Your task to perform on an android device: toggle priority inbox in the gmail app Image 0: 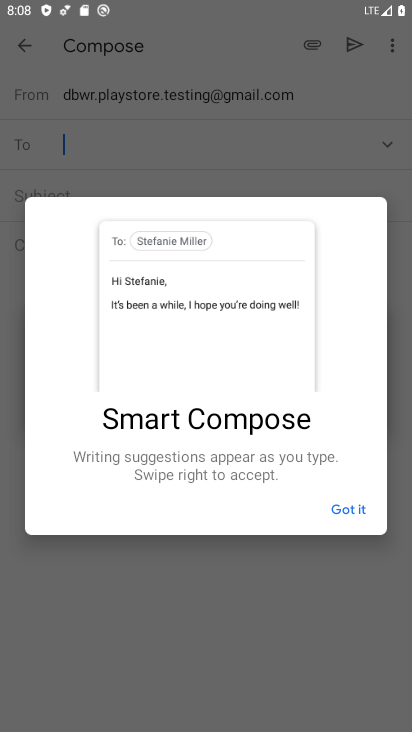
Step 0: press home button
Your task to perform on an android device: toggle priority inbox in the gmail app Image 1: 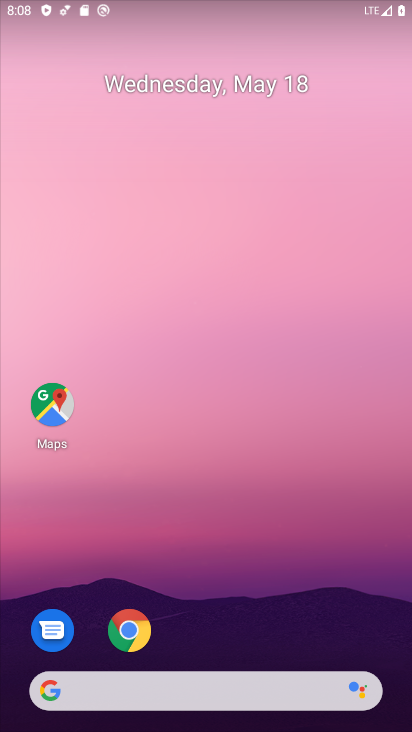
Step 1: drag from (228, 449) to (302, 80)
Your task to perform on an android device: toggle priority inbox in the gmail app Image 2: 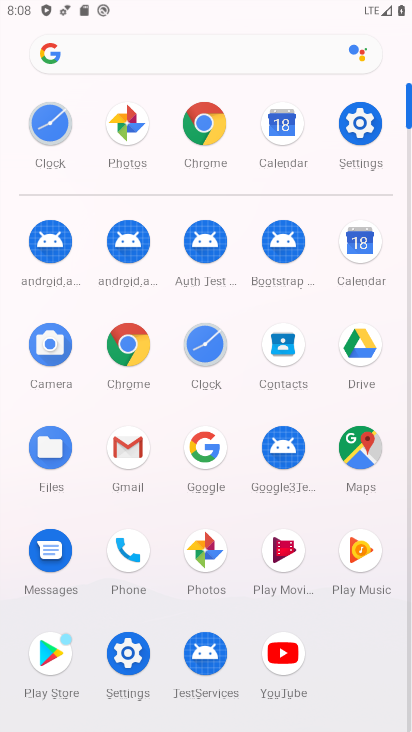
Step 2: click (125, 451)
Your task to perform on an android device: toggle priority inbox in the gmail app Image 3: 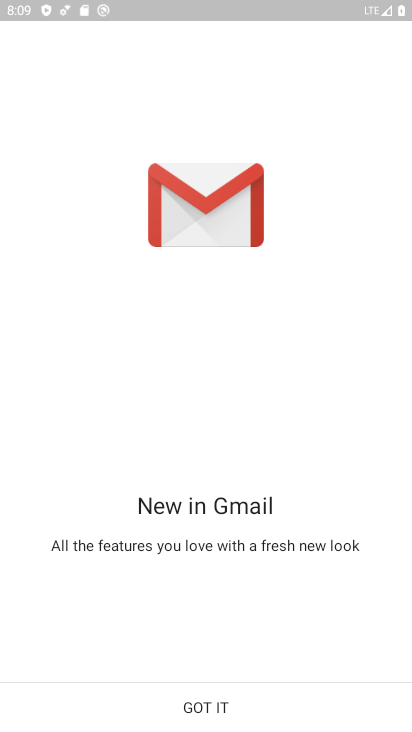
Step 3: click (238, 704)
Your task to perform on an android device: toggle priority inbox in the gmail app Image 4: 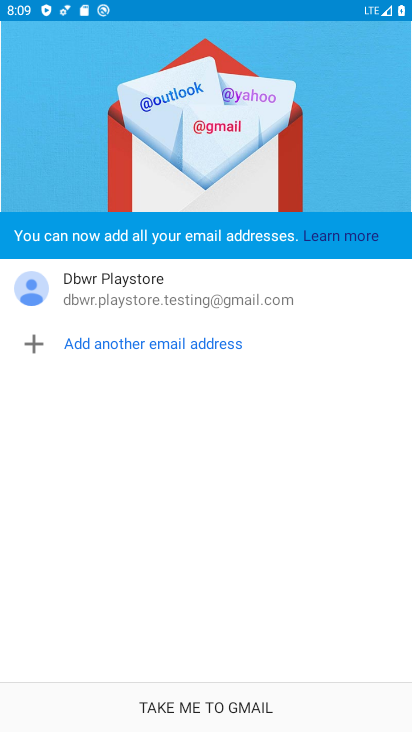
Step 4: click (238, 703)
Your task to perform on an android device: toggle priority inbox in the gmail app Image 5: 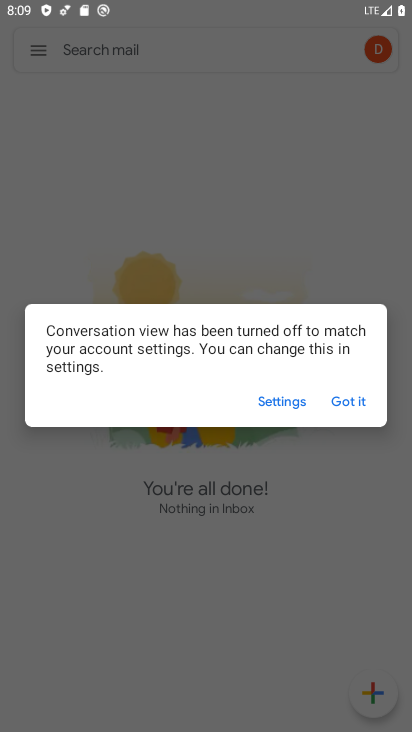
Step 5: click (347, 404)
Your task to perform on an android device: toggle priority inbox in the gmail app Image 6: 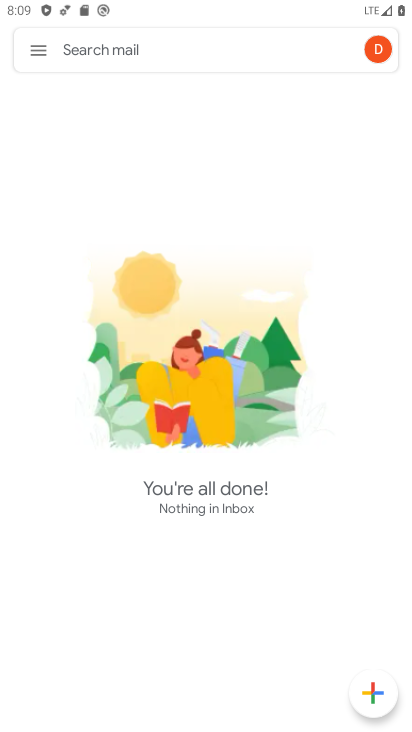
Step 6: click (45, 52)
Your task to perform on an android device: toggle priority inbox in the gmail app Image 7: 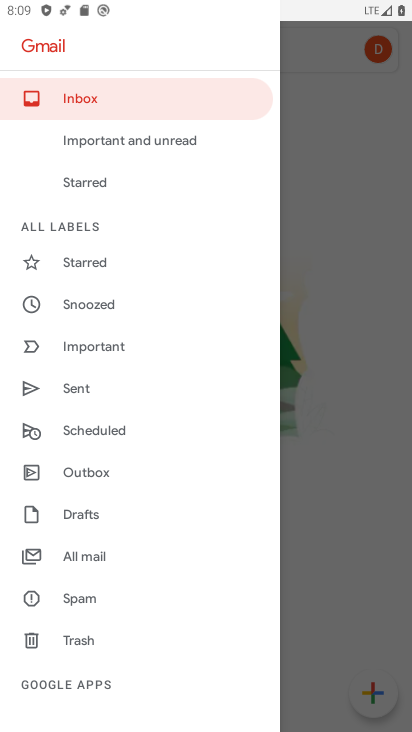
Step 7: drag from (144, 634) to (197, 309)
Your task to perform on an android device: toggle priority inbox in the gmail app Image 8: 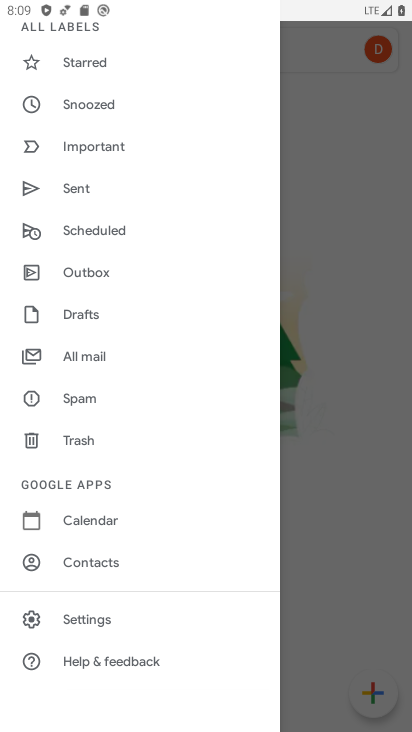
Step 8: click (96, 617)
Your task to perform on an android device: toggle priority inbox in the gmail app Image 9: 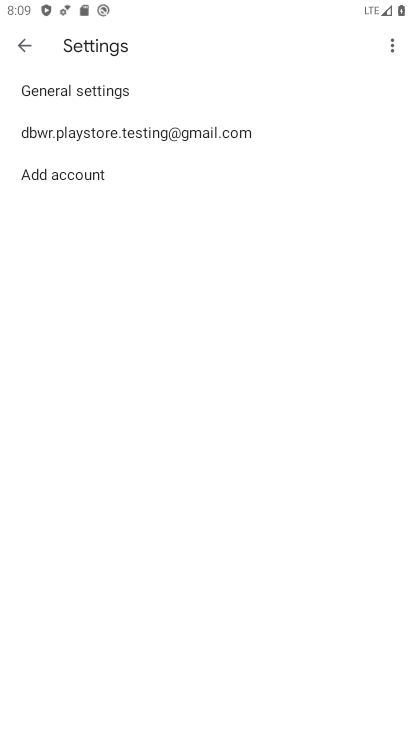
Step 9: click (179, 129)
Your task to perform on an android device: toggle priority inbox in the gmail app Image 10: 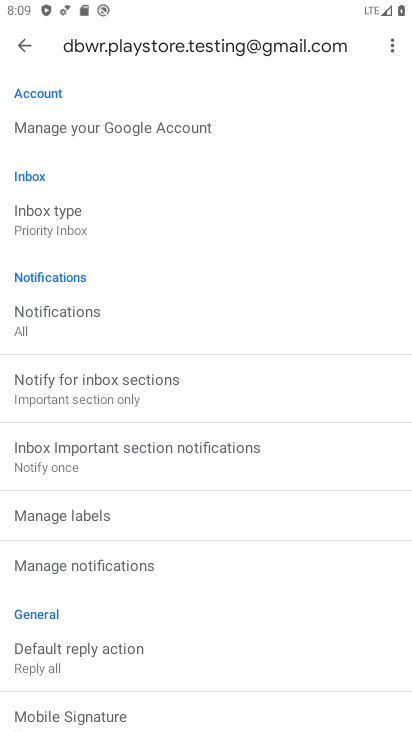
Step 10: click (44, 212)
Your task to perform on an android device: toggle priority inbox in the gmail app Image 11: 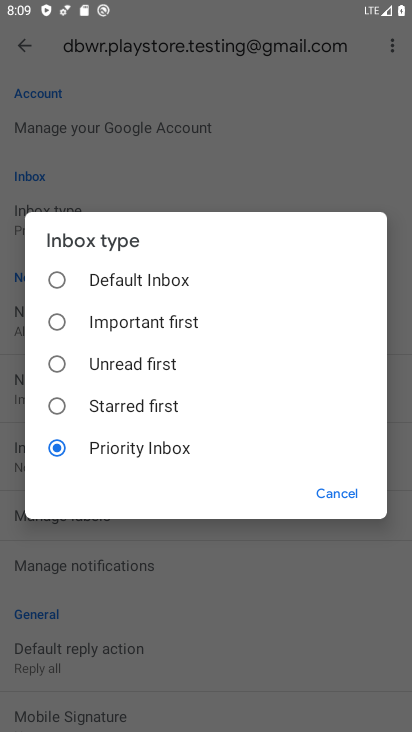
Step 11: click (59, 274)
Your task to perform on an android device: toggle priority inbox in the gmail app Image 12: 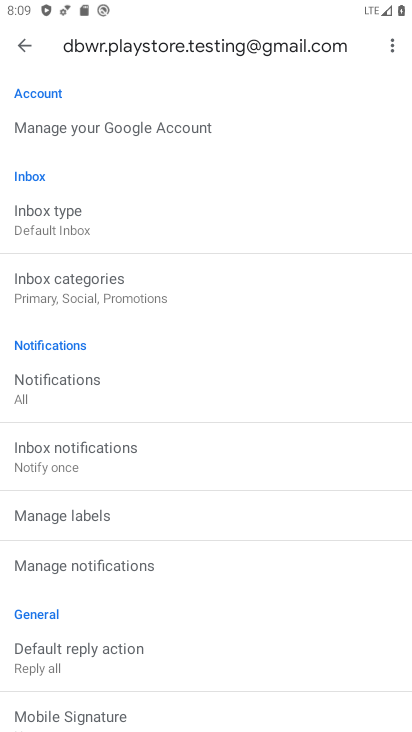
Step 12: task complete